Your task to perform on an android device: turn on airplane mode Image 0: 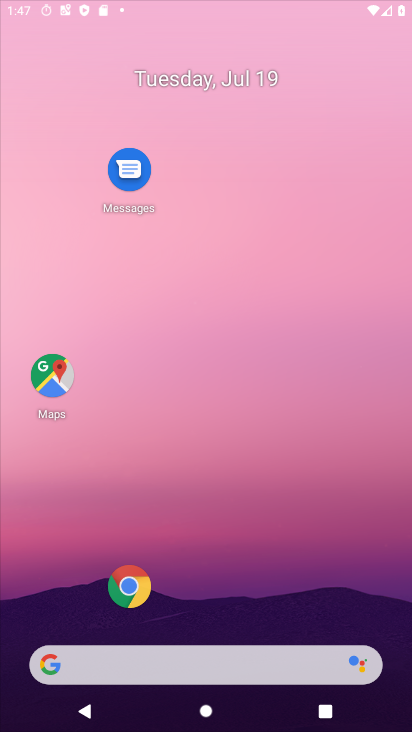
Step 0: drag from (26, 697) to (208, 251)
Your task to perform on an android device: turn on airplane mode Image 1: 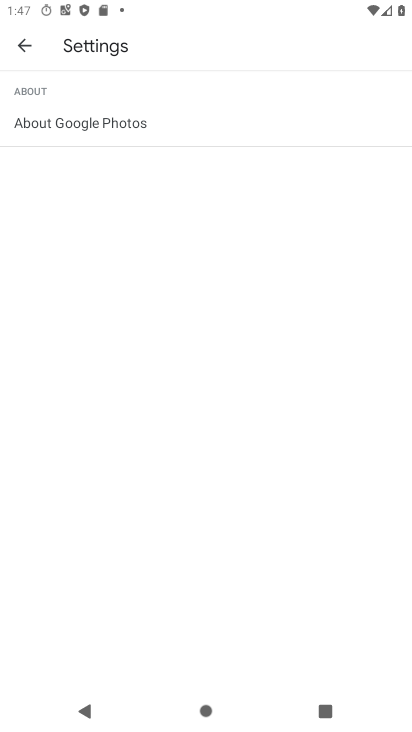
Step 1: click (22, 48)
Your task to perform on an android device: turn on airplane mode Image 2: 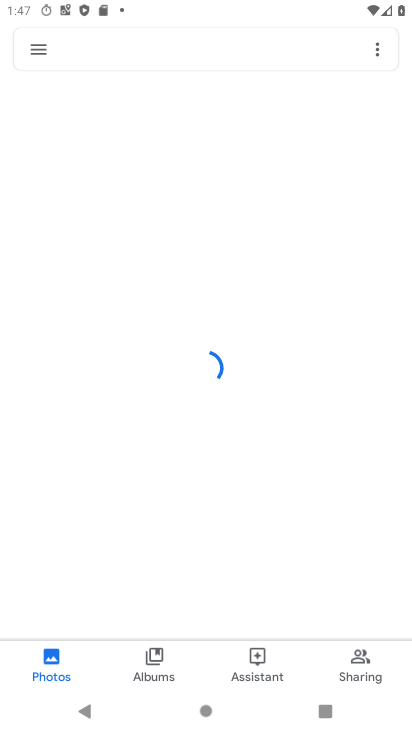
Step 2: press home button
Your task to perform on an android device: turn on airplane mode Image 3: 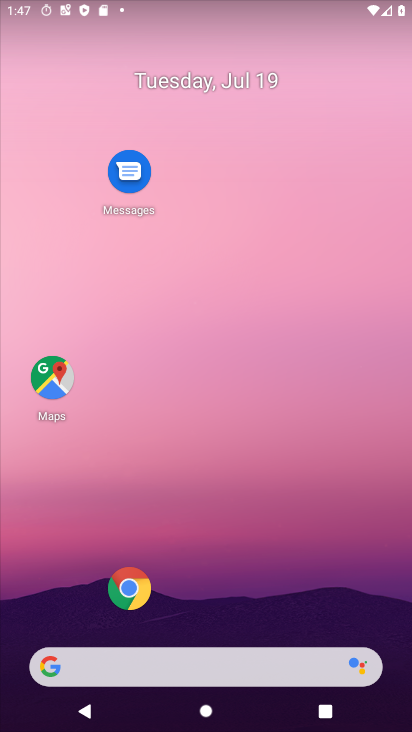
Step 3: drag from (54, 658) to (246, 144)
Your task to perform on an android device: turn on airplane mode Image 4: 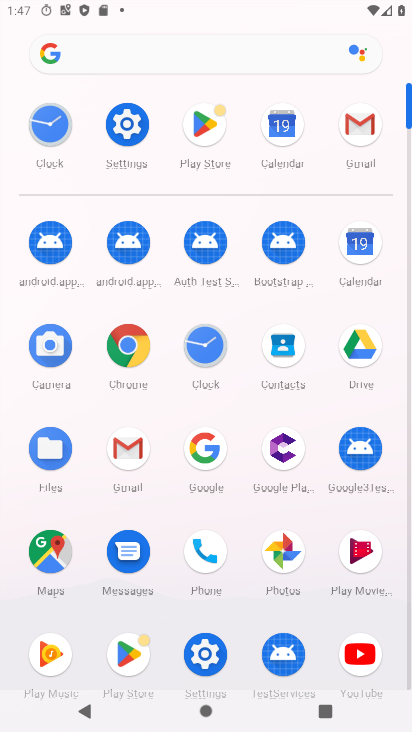
Step 4: click (190, 651)
Your task to perform on an android device: turn on airplane mode Image 5: 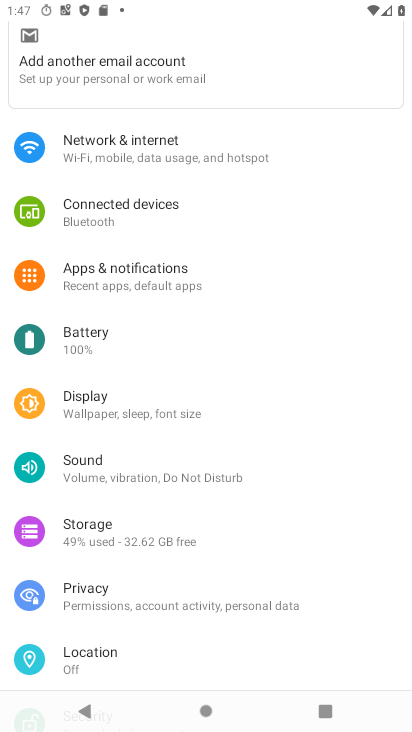
Step 5: click (120, 151)
Your task to perform on an android device: turn on airplane mode Image 6: 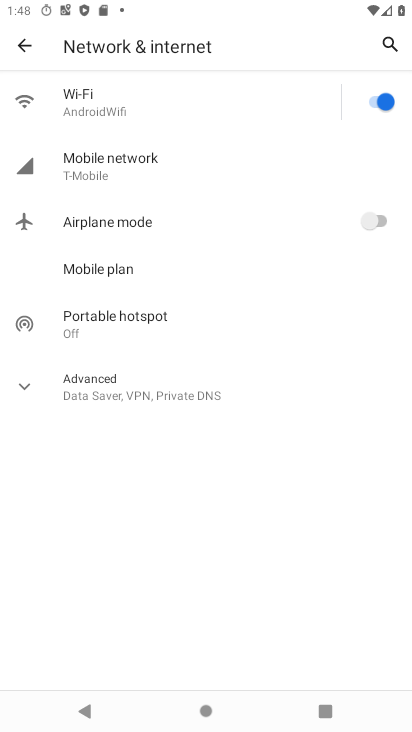
Step 6: click (370, 220)
Your task to perform on an android device: turn on airplane mode Image 7: 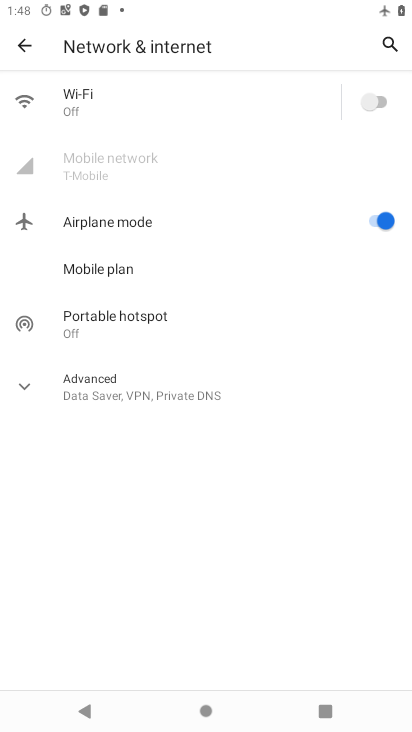
Step 7: task complete